Your task to perform on an android device: Go to notification settings Image 0: 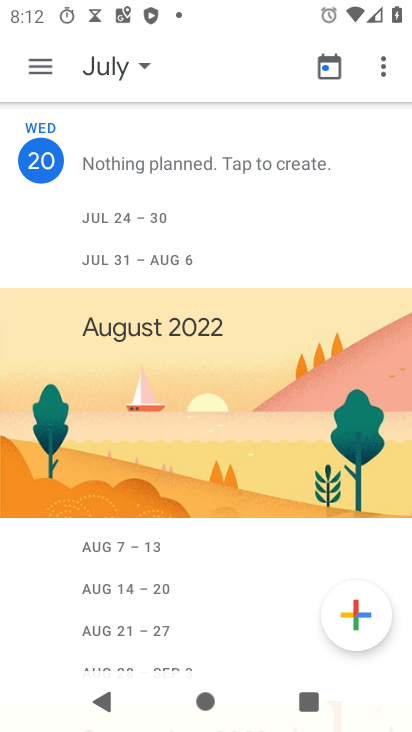
Step 0: press home button
Your task to perform on an android device: Go to notification settings Image 1: 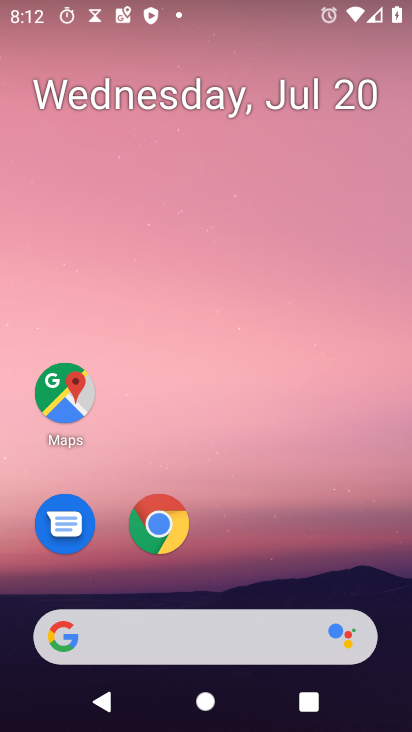
Step 1: drag from (188, 642) to (235, 148)
Your task to perform on an android device: Go to notification settings Image 2: 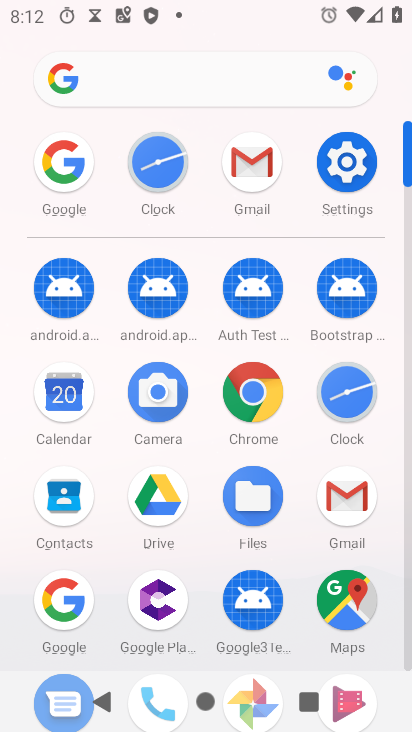
Step 2: click (350, 164)
Your task to perform on an android device: Go to notification settings Image 3: 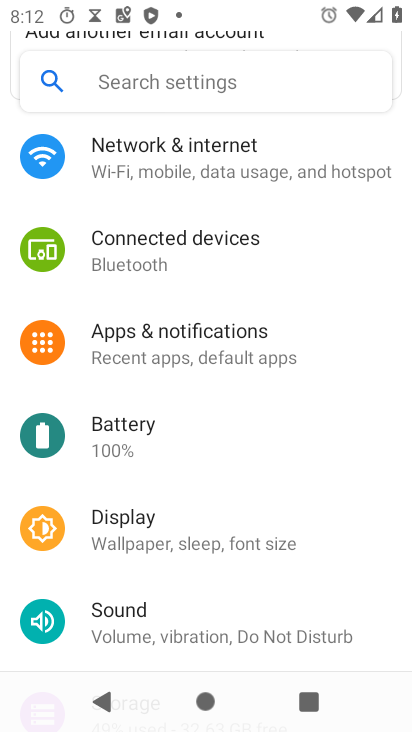
Step 3: click (182, 326)
Your task to perform on an android device: Go to notification settings Image 4: 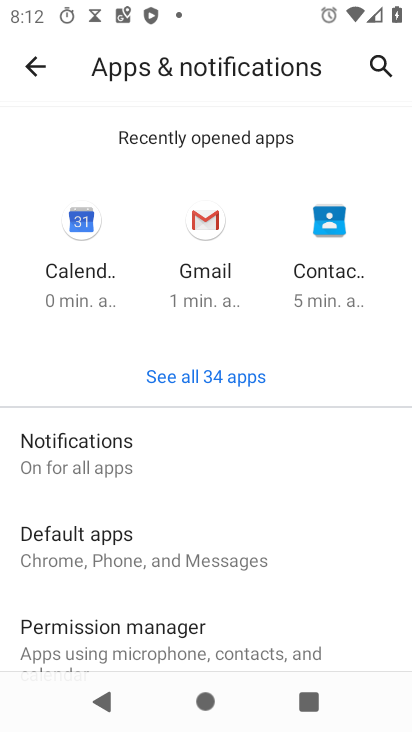
Step 4: click (70, 457)
Your task to perform on an android device: Go to notification settings Image 5: 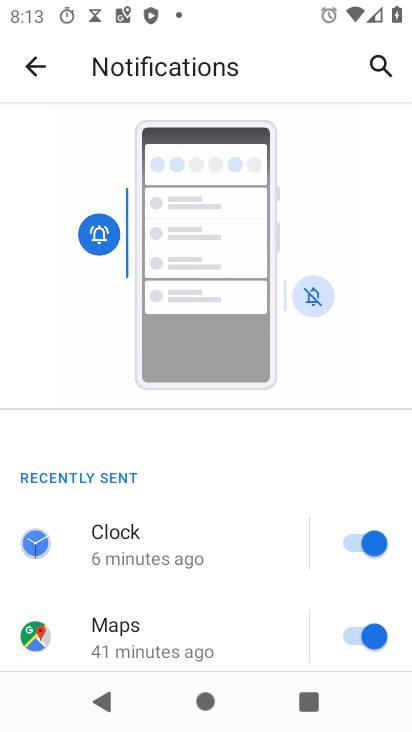
Step 5: task complete